Your task to perform on an android device: open device folders in google photos Image 0: 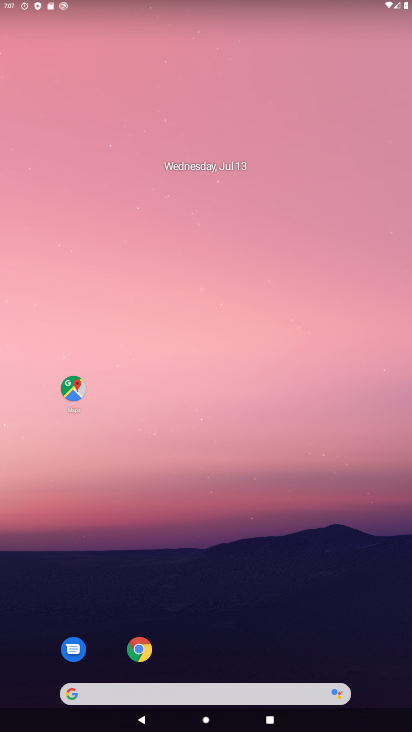
Step 0: drag from (216, 693) to (262, 164)
Your task to perform on an android device: open device folders in google photos Image 1: 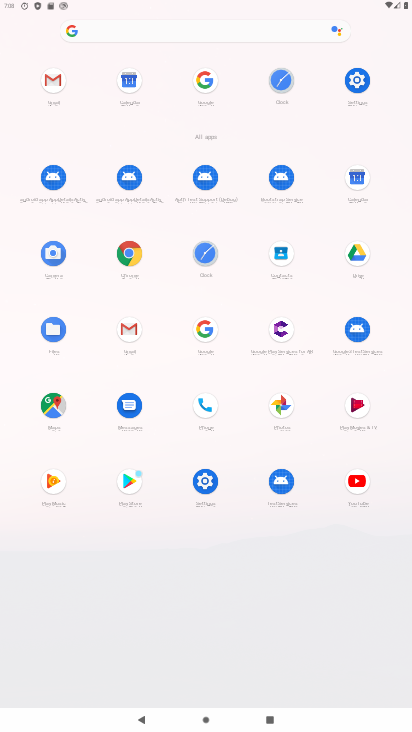
Step 1: click (281, 406)
Your task to perform on an android device: open device folders in google photos Image 2: 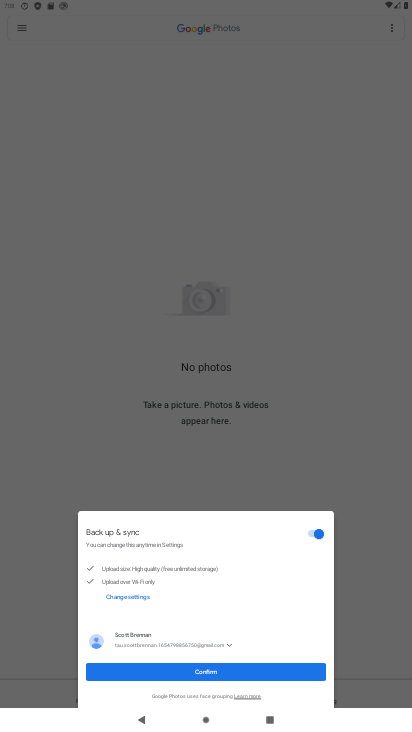
Step 2: click (204, 671)
Your task to perform on an android device: open device folders in google photos Image 3: 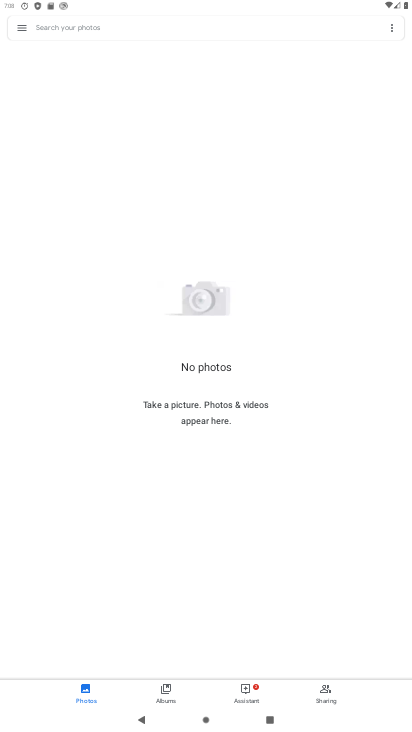
Step 3: click (23, 29)
Your task to perform on an android device: open device folders in google photos Image 4: 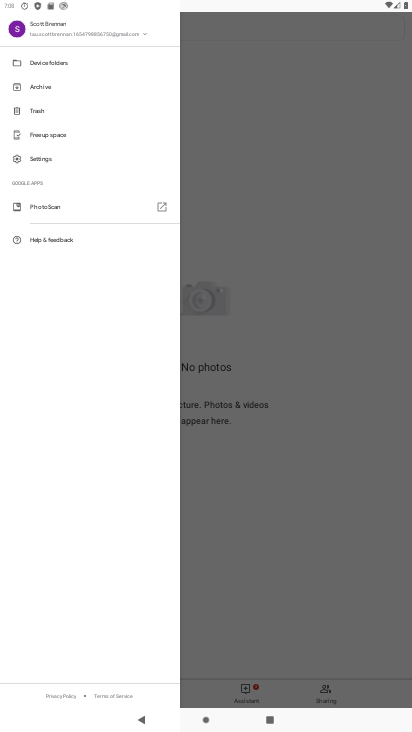
Step 4: click (43, 65)
Your task to perform on an android device: open device folders in google photos Image 5: 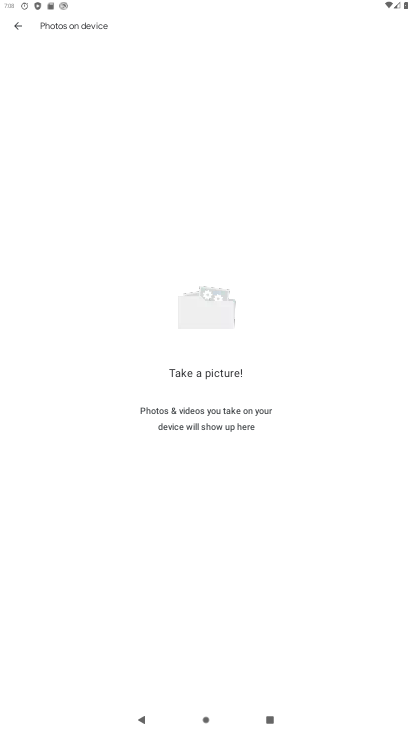
Step 5: task complete